Your task to perform on an android device: Open Google Chrome Image 0: 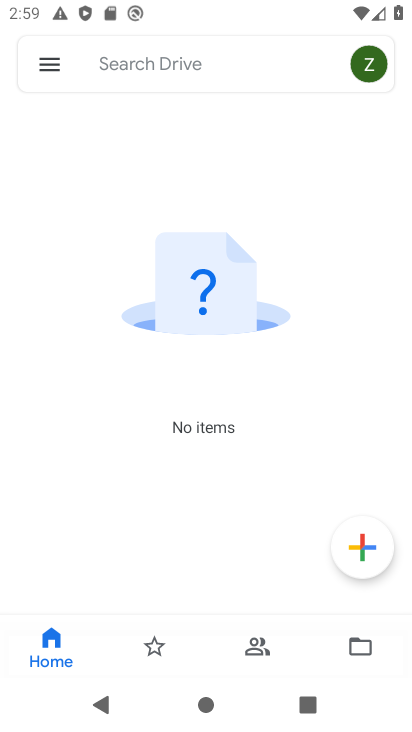
Step 0: press home button
Your task to perform on an android device: Open Google Chrome Image 1: 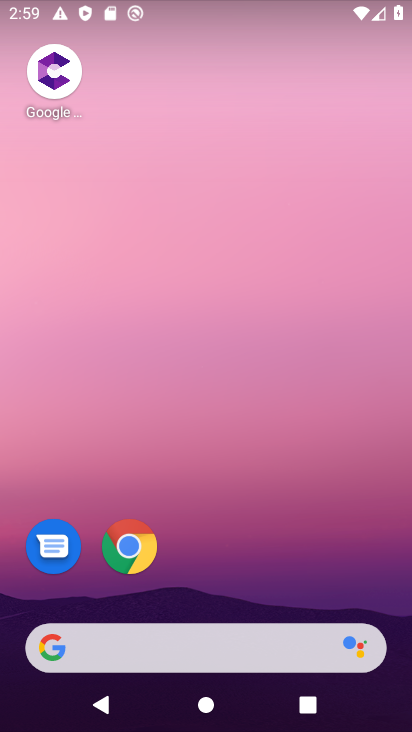
Step 1: click (150, 556)
Your task to perform on an android device: Open Google Chrome Image 2: 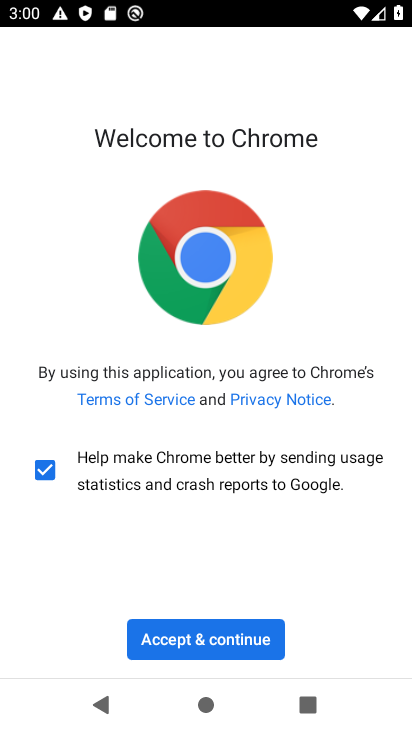
Step 2: click (277, 648)
Your task to perform on an android device: Open Google Chrome Image 3: 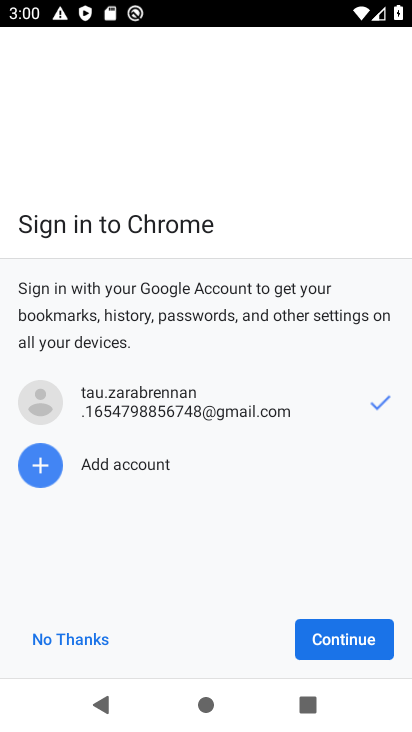
Step 3: click (354, 636)
Your task to perform on an android device: Open Google Chrome Image 4: 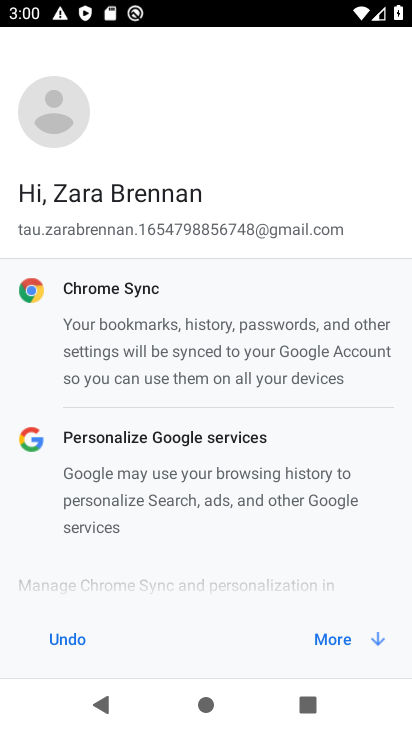
Step 4: click (354, 636)
Your task to perform on an android device: Open Google Chrome Image 5: 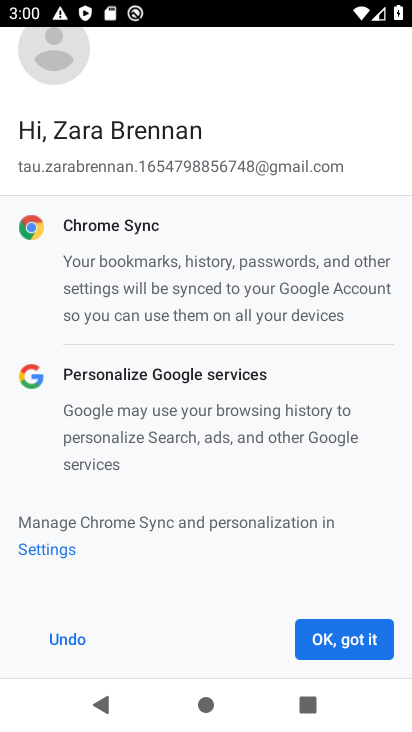
Step 5: click (354, 636)
Your task to perform on an android device: Open Google Chrome Image 6: 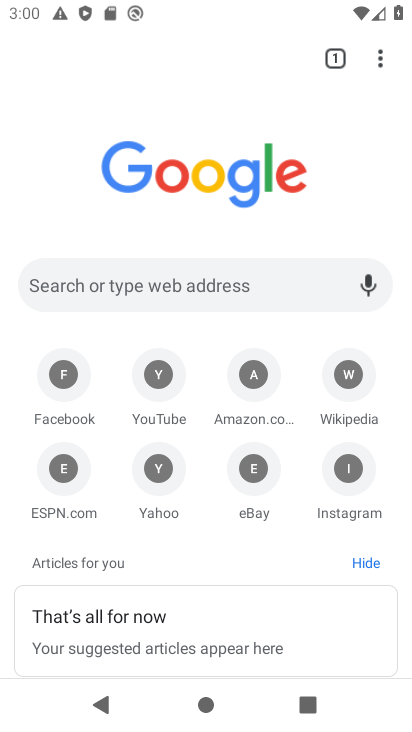
Step 6: task complete